Your task to perform on an android device: What's on my calendar tomorrow? Image 0: 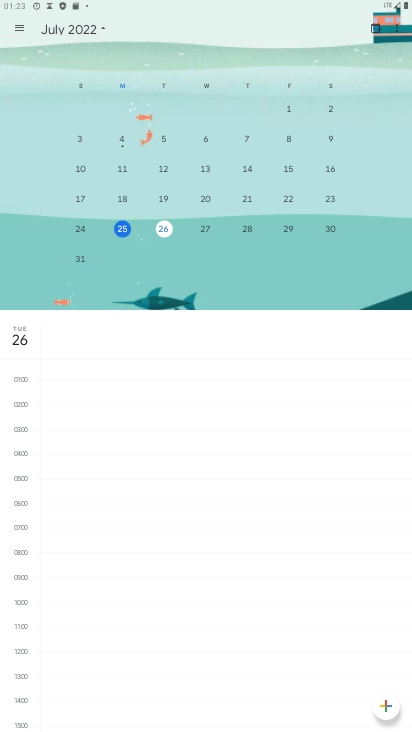
Step 0: press home button
Your task to perform on an android device: What's on my calendar tomorrow? Image 1: 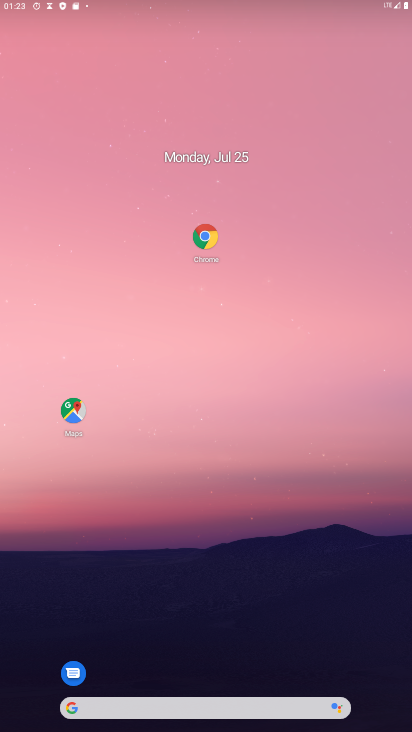
Step 1: drag from (242, 669) to (317, 8)
Your task to perform on an android device: What's on my calendar tomorrow? Image 2: 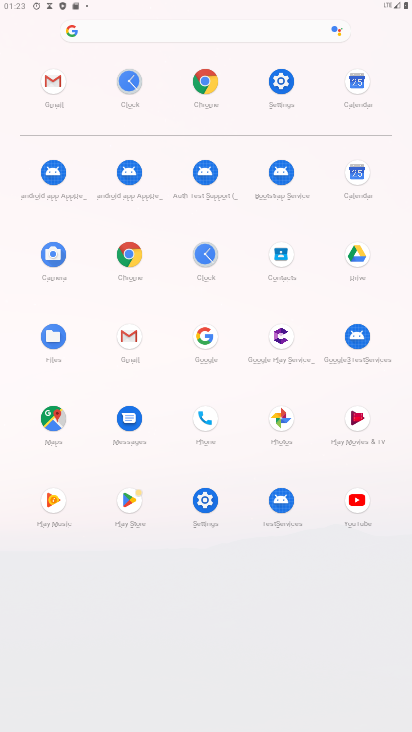
Step 2: click (368, 170)
Your task to perform on an android device: What's on my calendar tomorrow? Image 3: 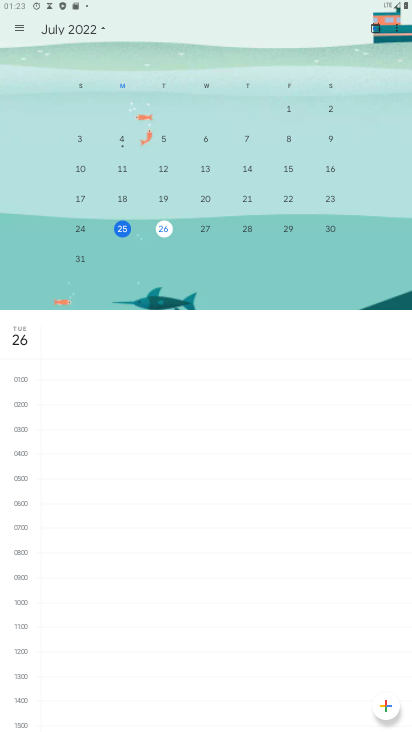
Step 3: task complete